Your task to perform on an android device: turn off airplane mode Image 0: 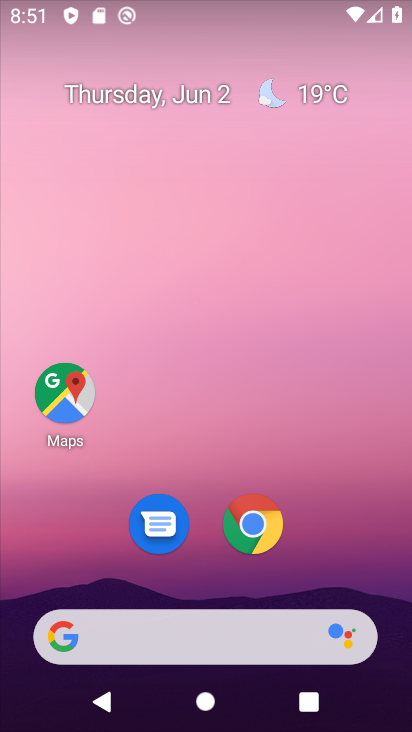
Step 0: drag from (324, 502) to (255, 8)
Your task to perform on an android device: turn off airplane mode Image 1: 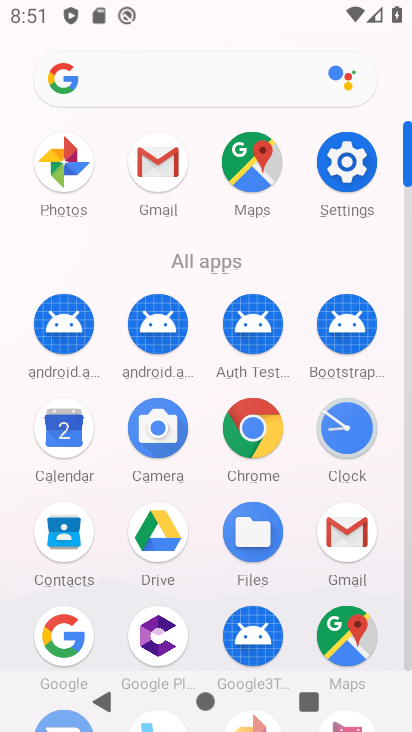
Step 1: click (337, 145)
Your task to perform on an android device: turn off airplane mode Image 2: 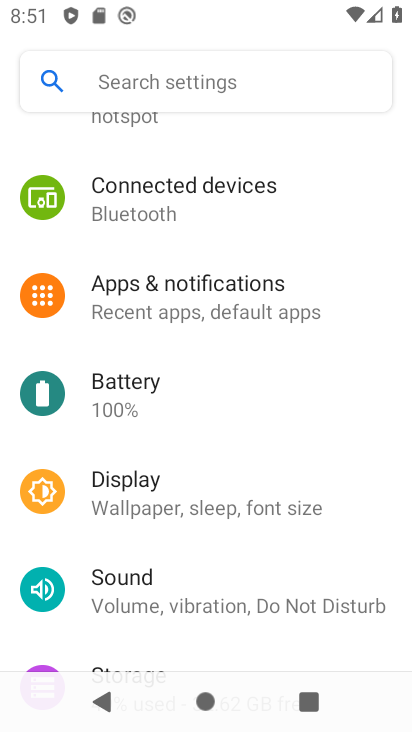
Step 2: drag from (260, 242) to (242, 497)
Your task to perform on an android device: turn off airplane mode Image 3: 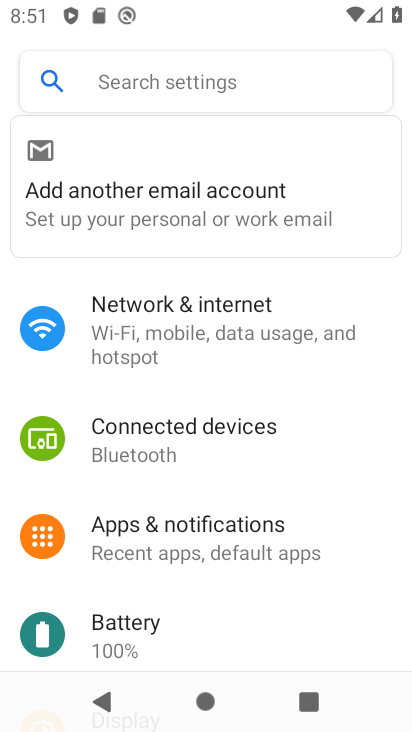
Step 3: click (238, 332)
Your task to perform on an android device: turn off airplane mode Image 4: 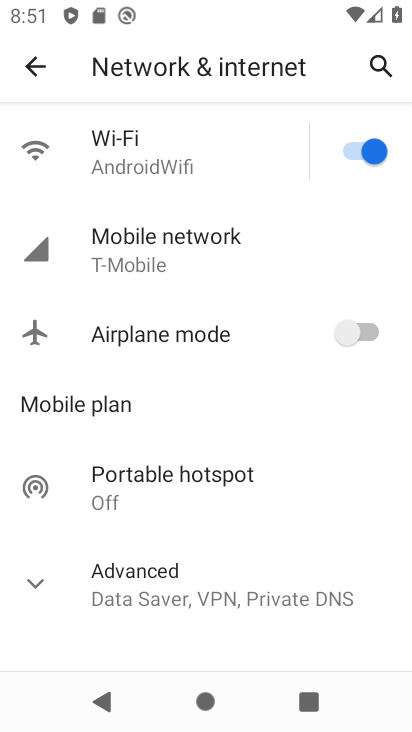
Step 4: task complete